Your task to perform on an android device: Open location settings Image 0: 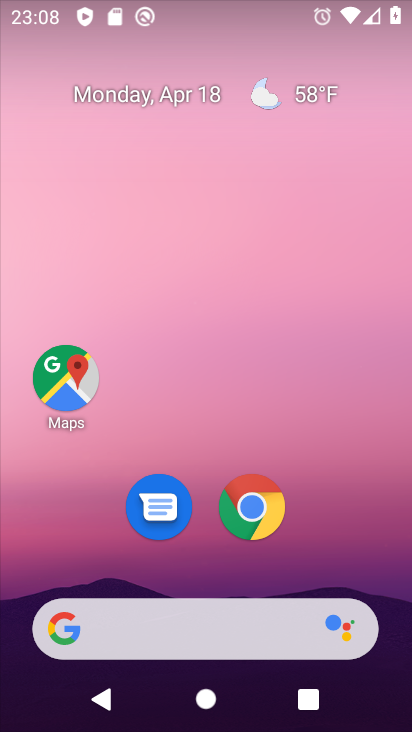
Step 0: drag from (239, 10) to (273, 520)
Your task to perform on an android device: Open location settings Image 1: 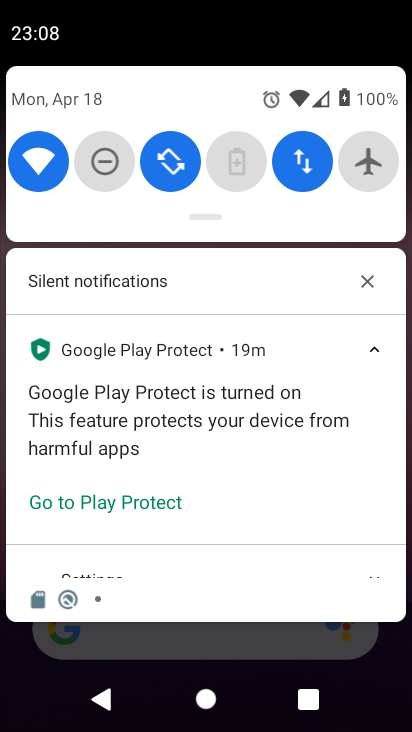
Step 1: drag from (249, 103) to (272, 514)
Your task to perform on an android device: Open location settings Image 2: 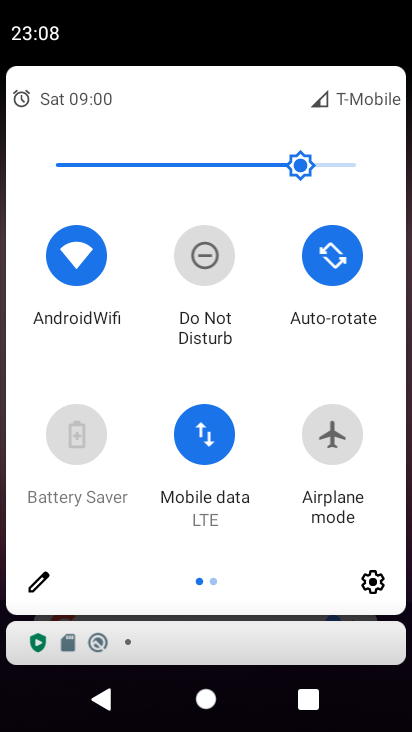
Step 2: click (375, 581)
Your task to perform on an android device: Open location settings Image 3: 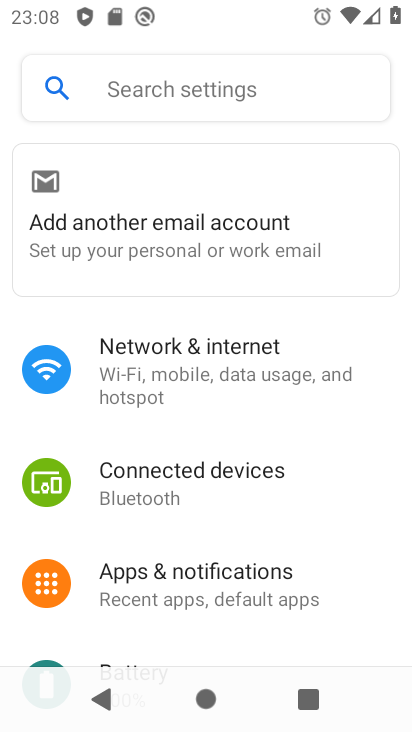
Step 3: drag from (170, 604) to (153, 112)
Your task to perform on an android device: Open location settings Image 4: 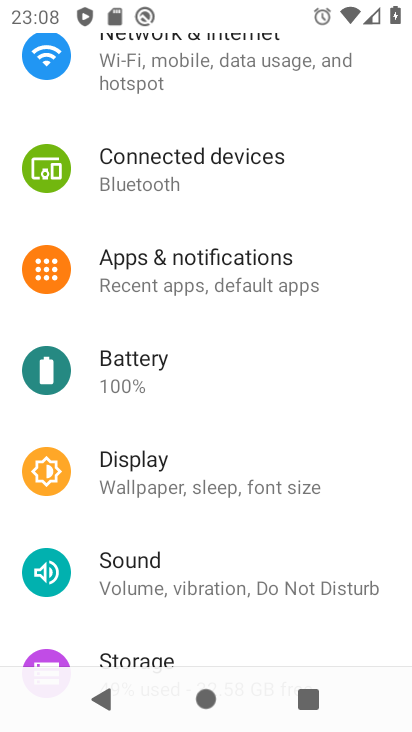
Step 4: drag from (144, 602) to (180, 144)
Your task to perform on an android device: Open location settings Image 5: 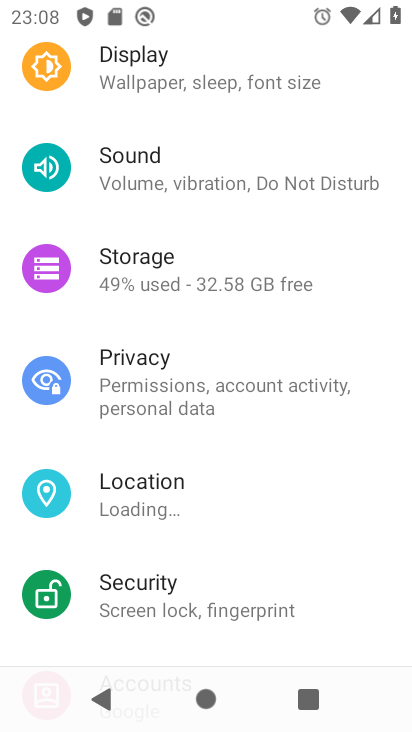
Step 5: click (132, 532)
Your task to perform on an android device: Open location settings Image 6: 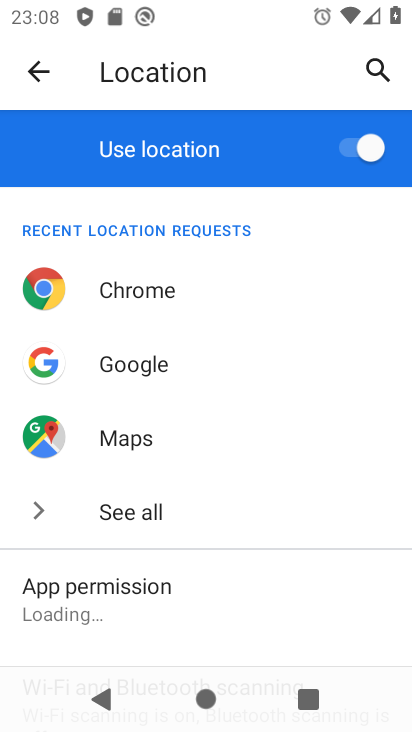
Step 6: task complete